Your task to perform on an android device: Go to Maps Image 0: 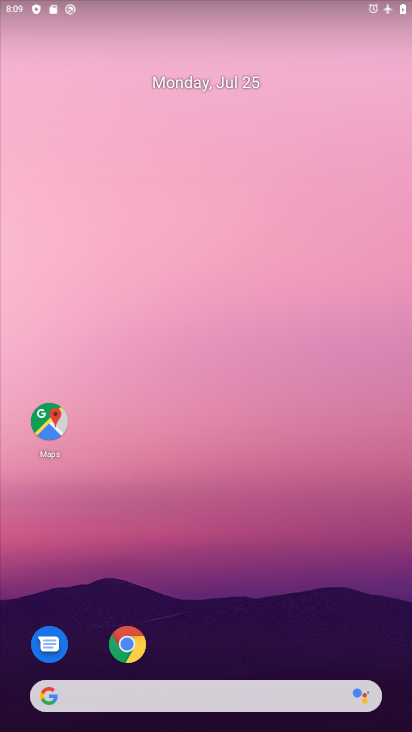
Step 0: click (42, 420)
Your task to perform on an android device: Go to Maps Image 1: 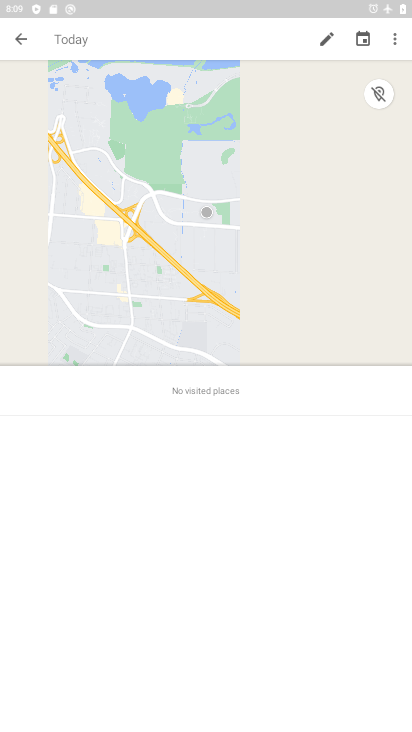
Step 1: task complete